Your task to perform on an android device: change the clock display to show seconds Image 0: 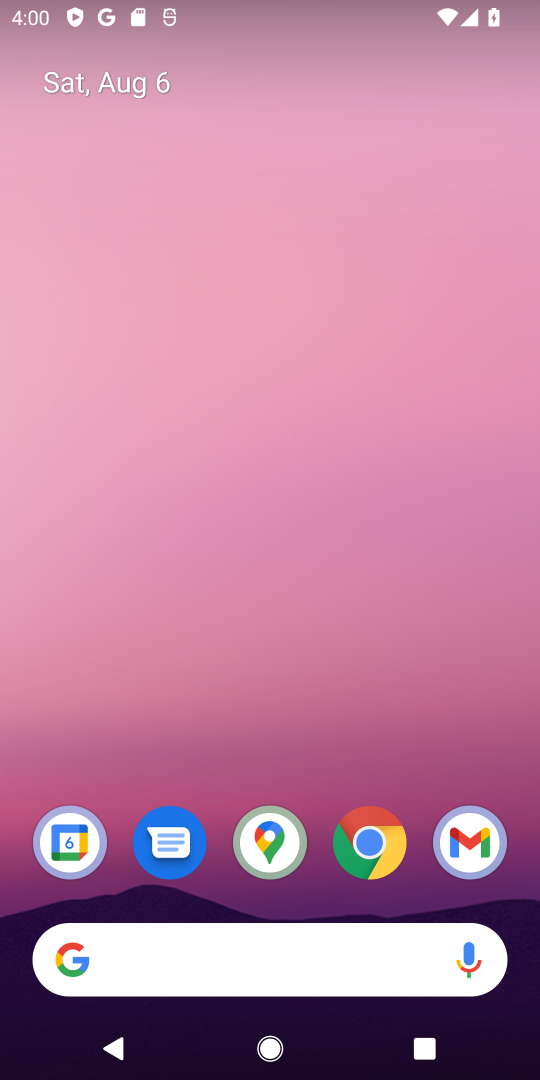
Step 0: drag from (519, 1039) to (425, 113)
Your task to perform on an android device: change the clock display to show seconds Image 1: 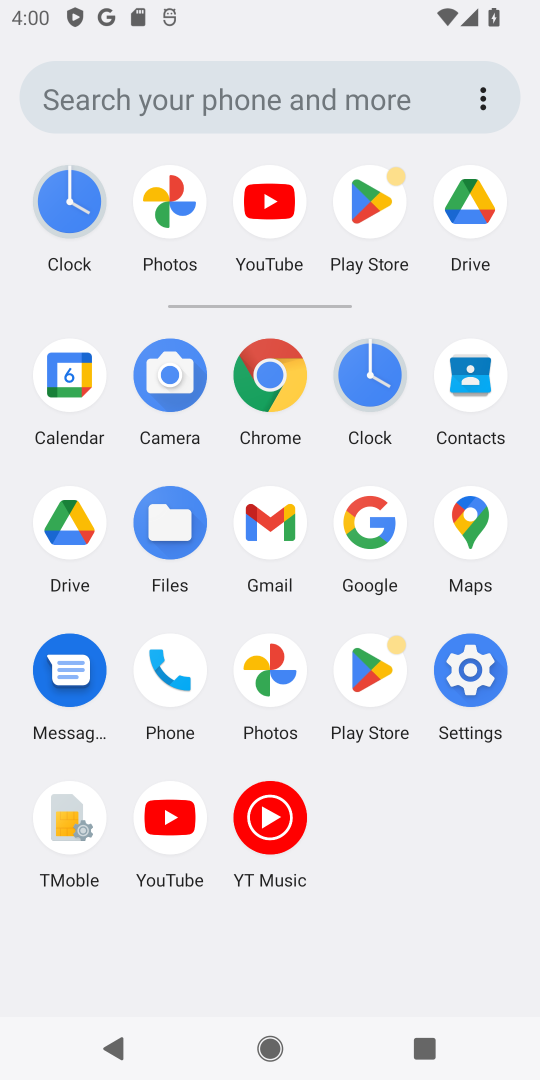
Step 1: click (354, 374)
Your task to perform on an android device: change the clock display to show seconds Image 2: 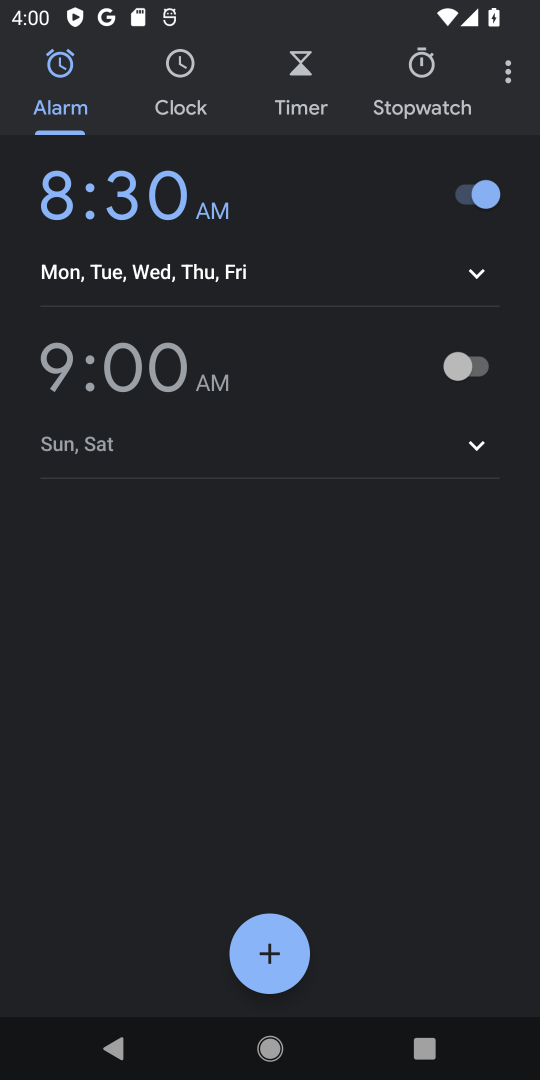
Step 2: click (507, 72)
Your task to perform on an android device: change the clock display to show seconds Image 3: 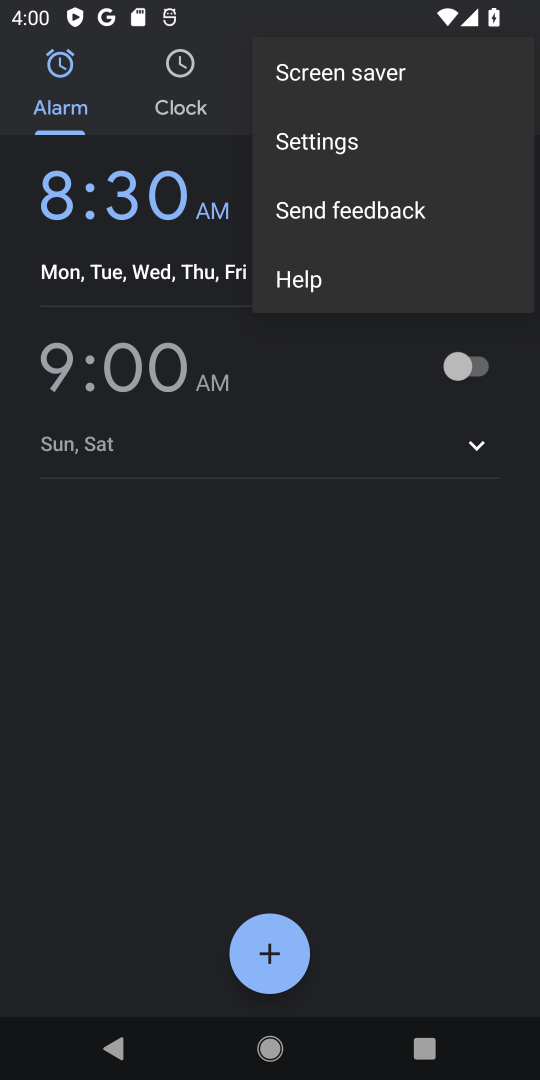
Step 3: click (362, 140)
Your task to perform on an android device: change the clock display to show seconds Image 4: 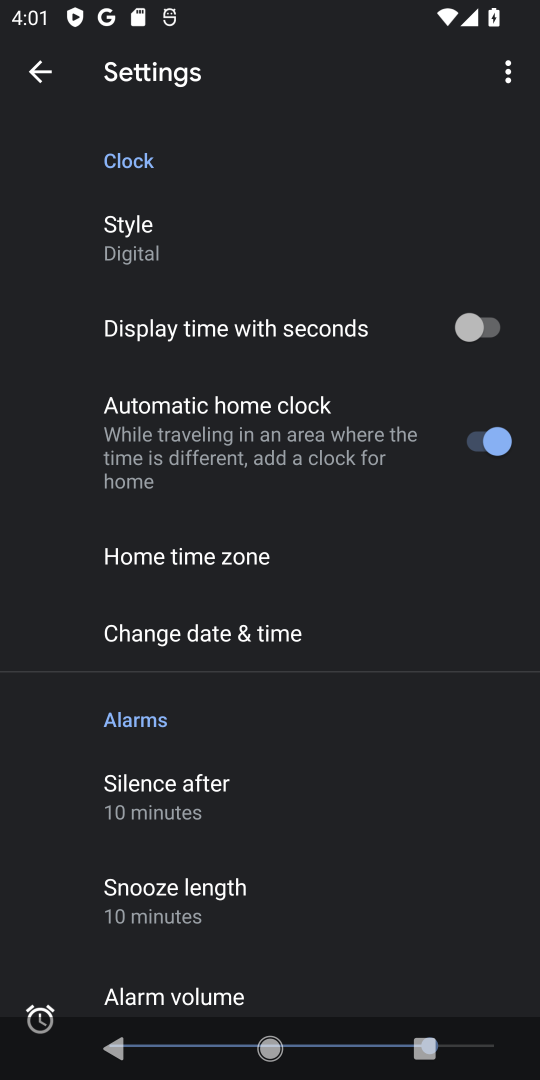
Step 4: click (496, 331)
Your task to perform on an android device: change the clock display to show seconds Image 5: 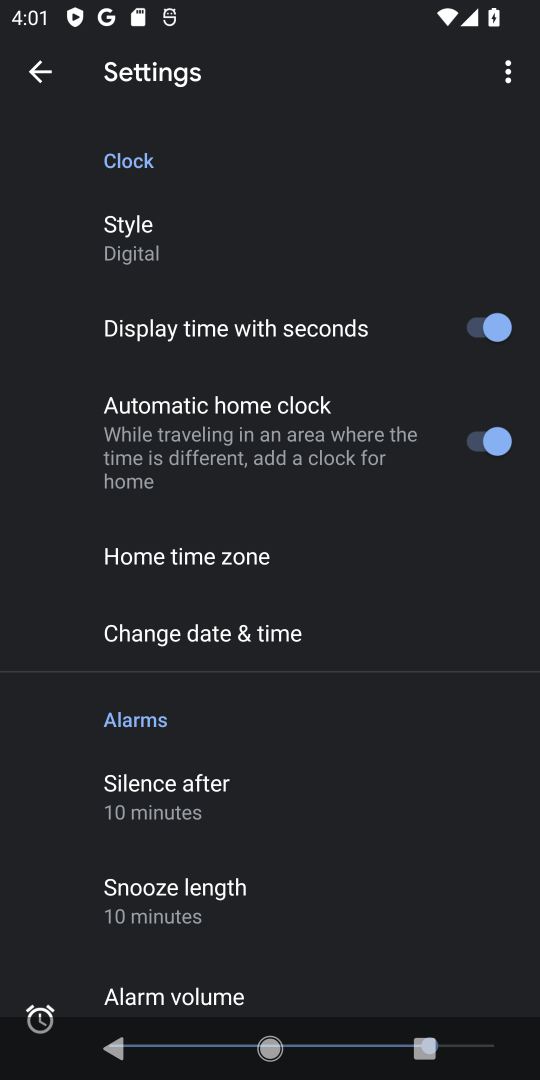
Step 5: task complete